Your task to perform on an android device: Toggle the flashlight Image 0: 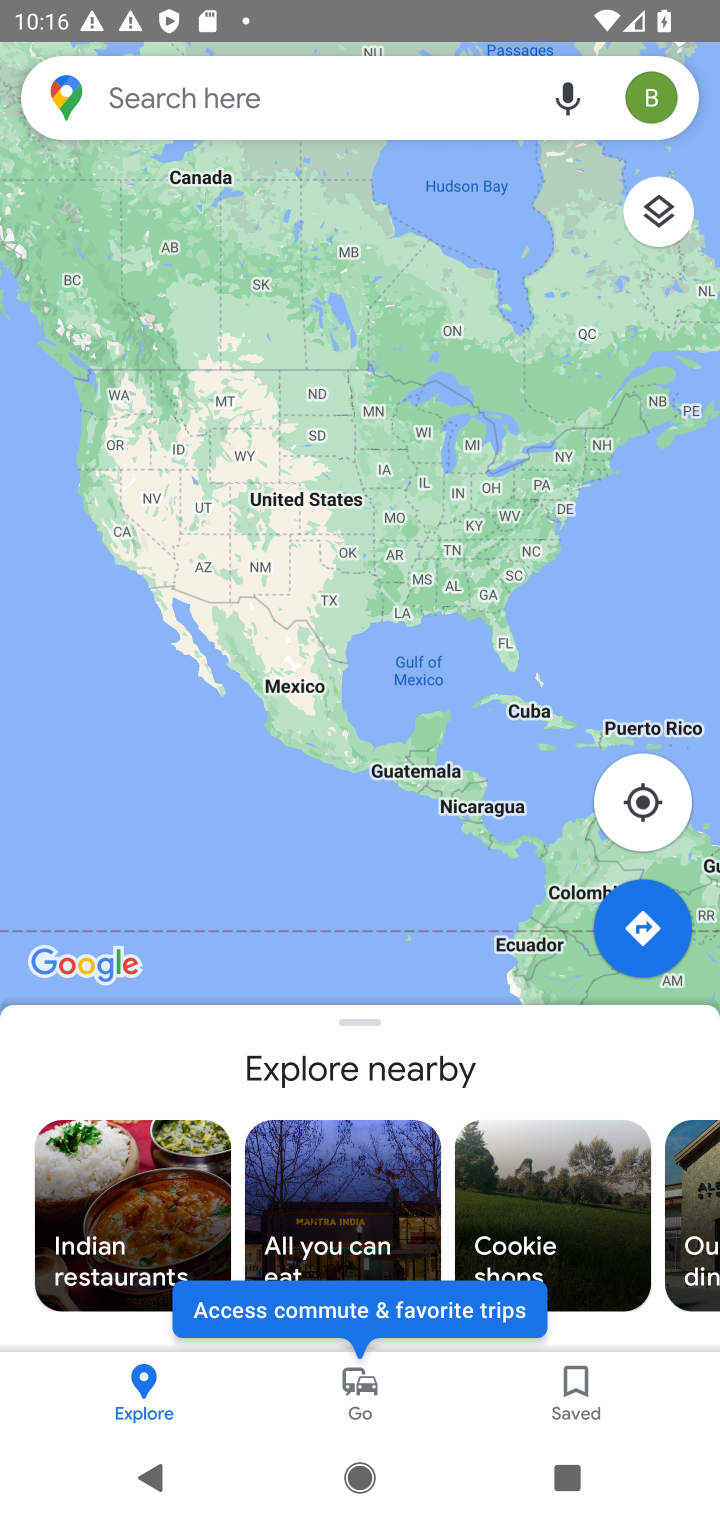
Step 0: task complete